Your task to perform on an android device: toggle show notifications on the lock screen Image 0: 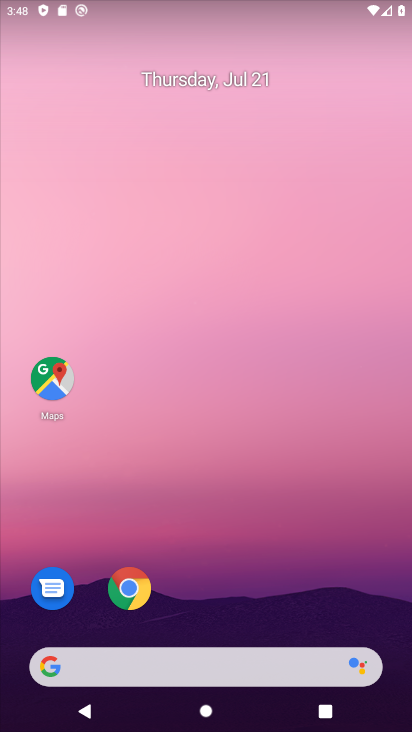
Step 0: drag from (307, 610) to (260, 84)
Your task to perform on an android device: toggle show notifications on the lock screen Image 1: 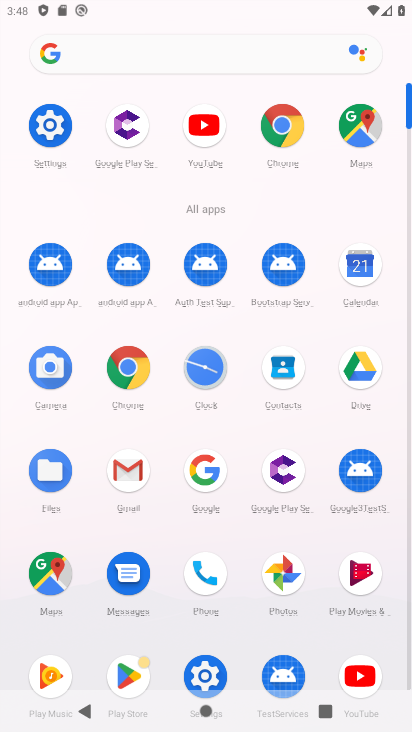
Step 1: click (201, 672)
Your task to perform on an android device: toggle show notifications on the lock screen Image 2: 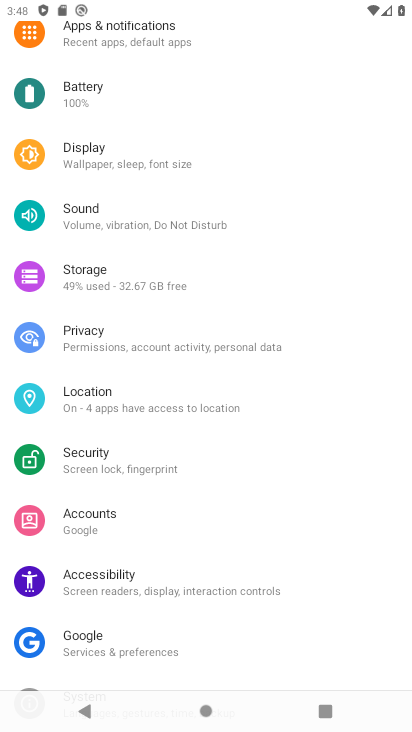
Step 2: drag from (182, 613) to (184, 275)
Your task to perform on an android device: toggle show notifications on the lock screen Image 3: 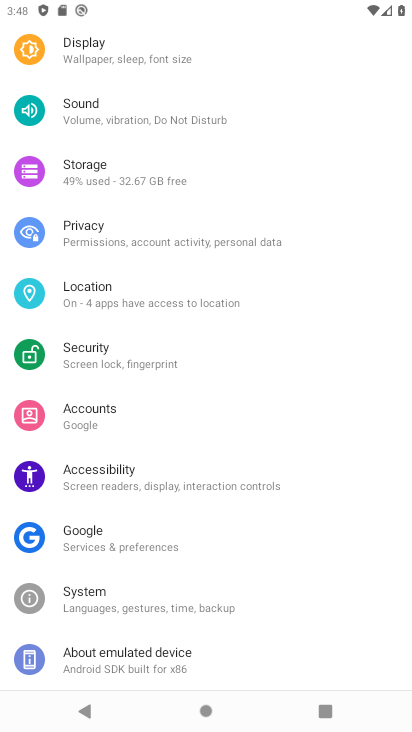
Step 3: drag from (186, 117) to (171, 482)
Your task to perform on an android device: toggle show notifications on the lock screen Image 4: 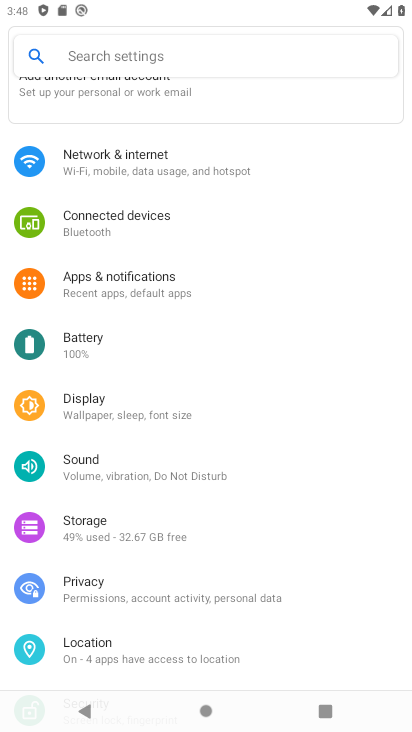
Step 4: click (141, 276)
Your task to perform on an android device: toggle show notifications on the lock screen Image 5: 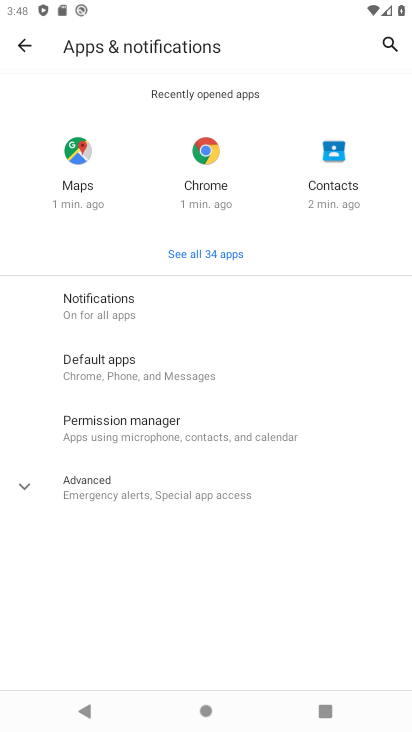
Step 5: click (77, 306)
Your task to perform on an android device: toggle show notifications on the lock screen Image 6: 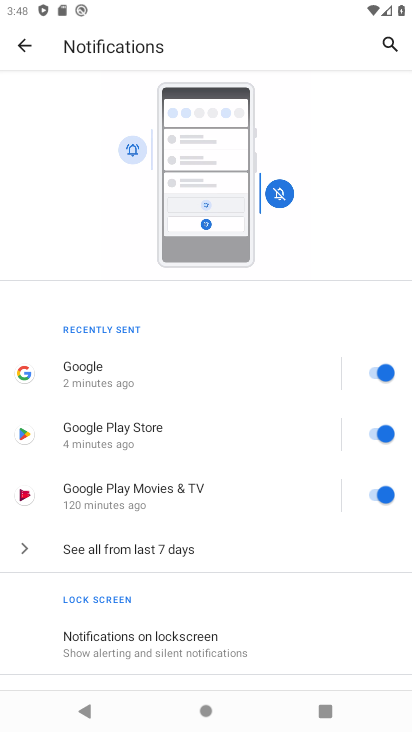
Step 6: click (178, 642)
Your task to perform on an android device: toggle show notifications on the lock screen Image 7: 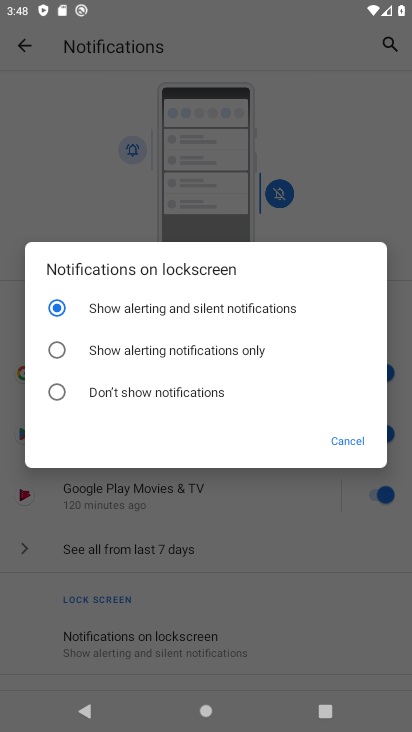
Step 7: click (125, 391)
Your task to perform on an android device: toggle show notifications on the lock screen Image 8: 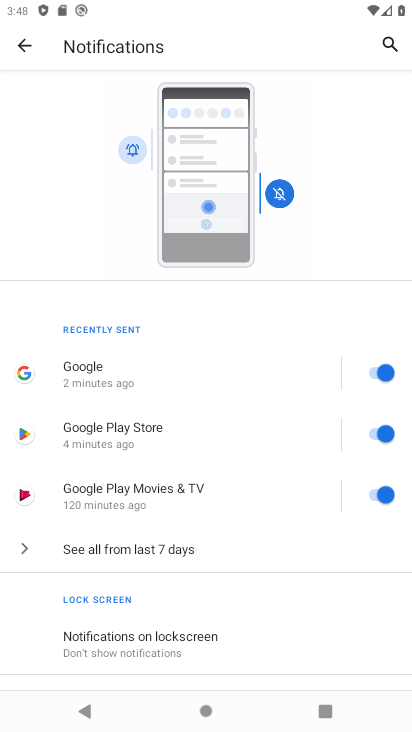
Step 8: task complete